Your task to perform on an android device: Open settings on Google Maps Image 0: 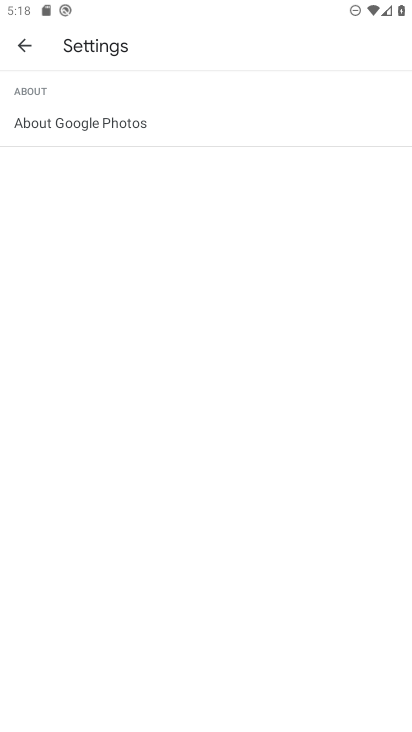
Step 0: press home button
Your task to perform on an android device: Open settings on Google Maps Image 1: 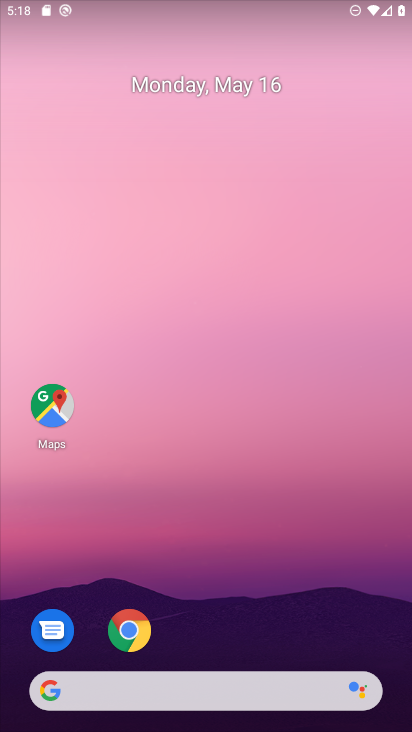
Step 1: click (51, 404)
Your task to perform on an android device: Open settings on Google Maps Image 2: 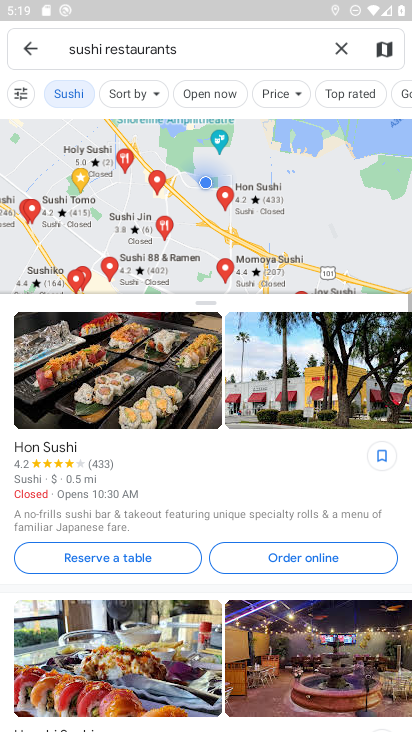
Step 2: click (30, 45)
Your task to perform on an android device: Open settings on Google Maps Image 3: 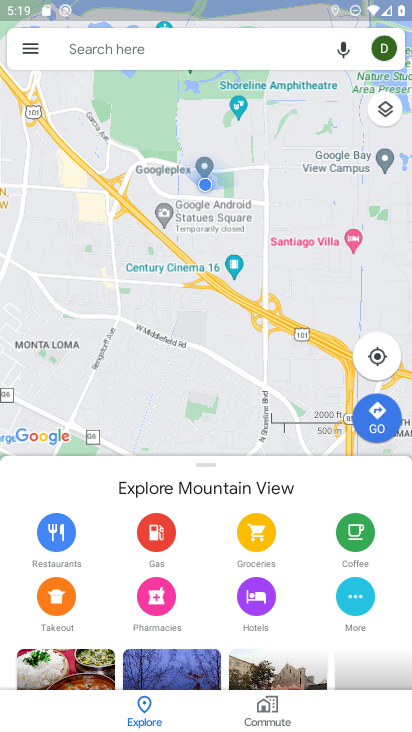
Step 3: click (30, 45)
Your task to perform on an android device: Open settings on Google Maps Image 4: 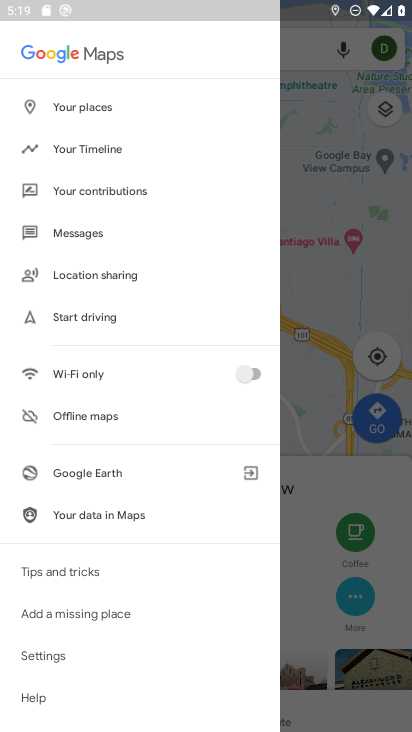
Step 4: click (79, 149)
Your task to perform on an android device: Open settings on Google Maps Image 5: 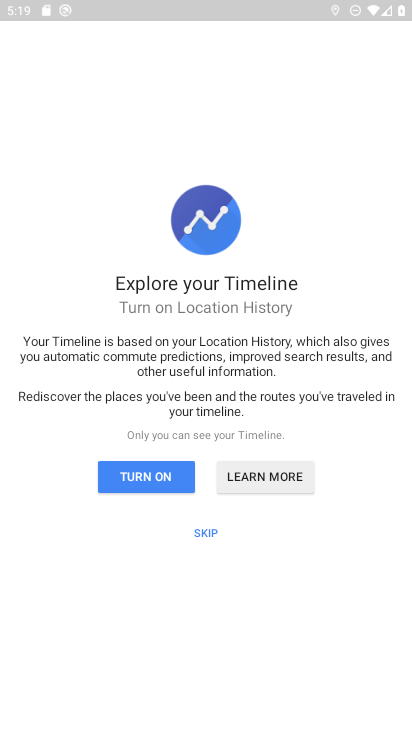
Step 5: click (190, 532)
Your task to perform on an android device: Open settings on Google Maps Image 6: 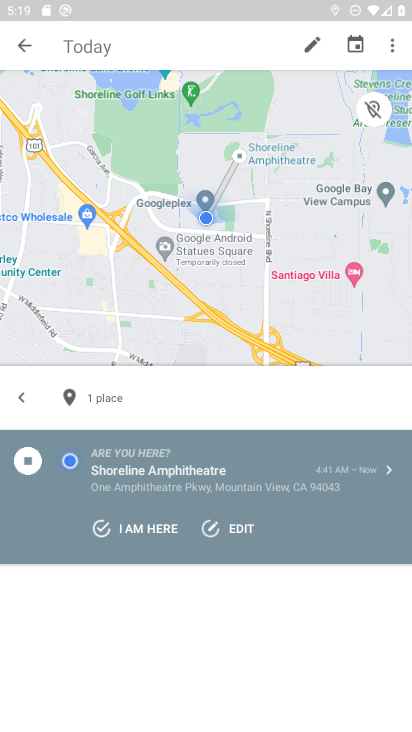
Step 6: click (391, 48)
Your task to perform on an android device: Open settings on Google Maps Image 7: 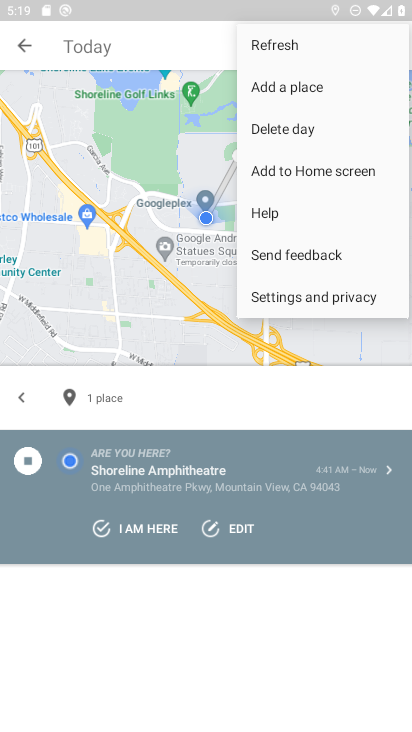
Step 7: click (308, 296)
Your task to perform on an android device: Open settings on Google Maps Image 8: 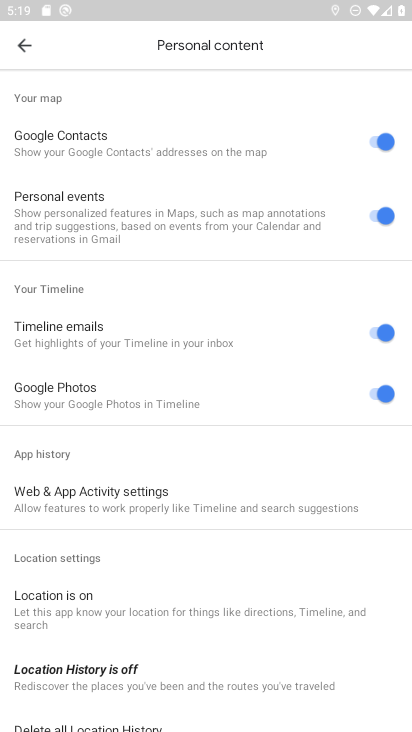
Step 8: task complete